Your task to perform on an android device: turn off improve location accuracy Image 0: 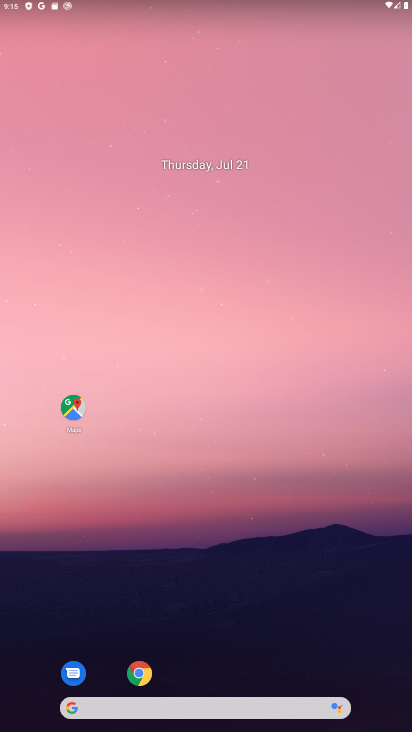
Step 0: press home button
Your task to perform on an android device: turn off improve location accuracy Image 1: 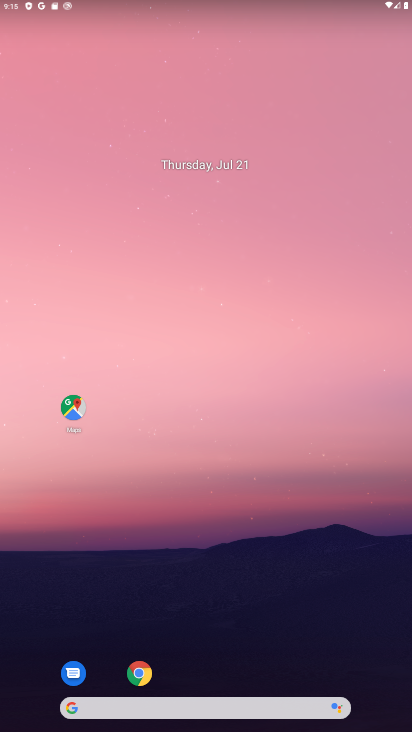
Step 1: drag from (207, 656) to (220, 128)
Your task to perform on an android device: turn off improve location accuracy Image 2: 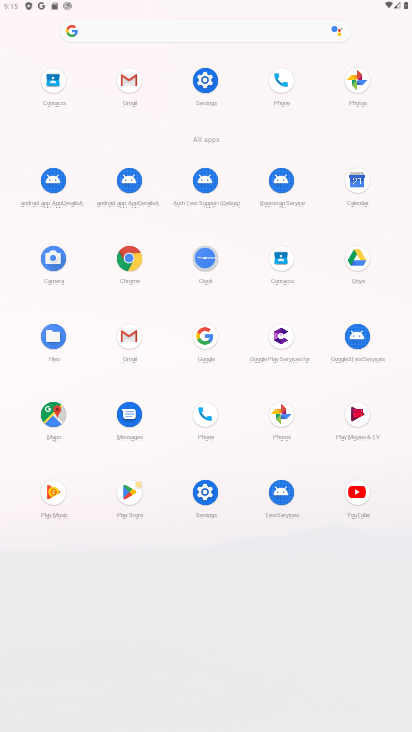
Step 2: click (204, 72)
Your task to perform on an android device: turn off improve location accuracy Image 3: 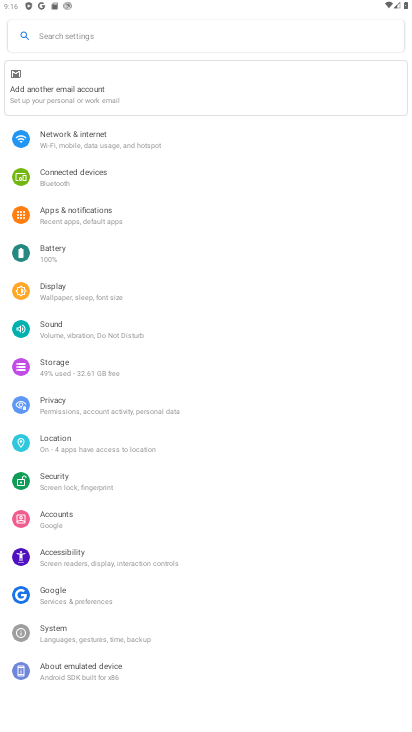
Step 3: click (68, 439)
Your task to perform on an android device: turn off improve location accuracy Image 4: 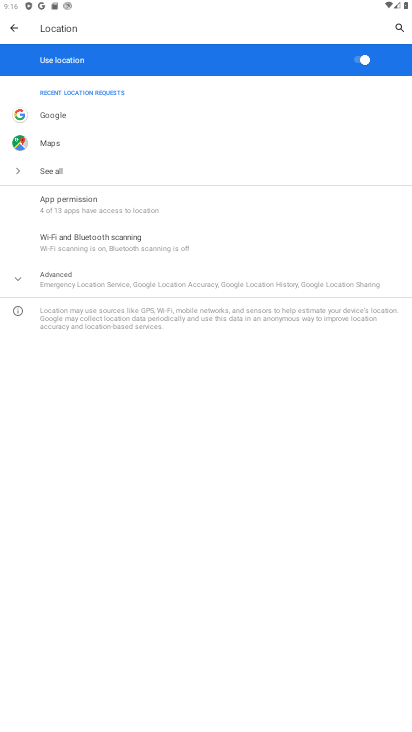
Step 4: click (18, 279)
Your task to perform on an android device: turn off improve location accuracy Image 5: 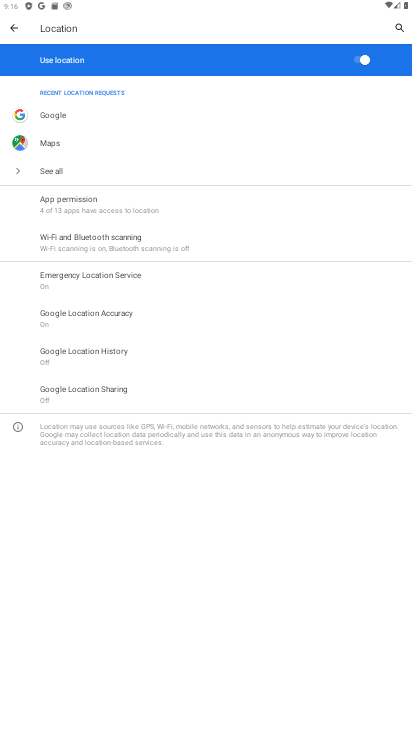
Step 5: click (95, 316)
Your task to perform on an android device: turn off improve location accuracy Image 6: 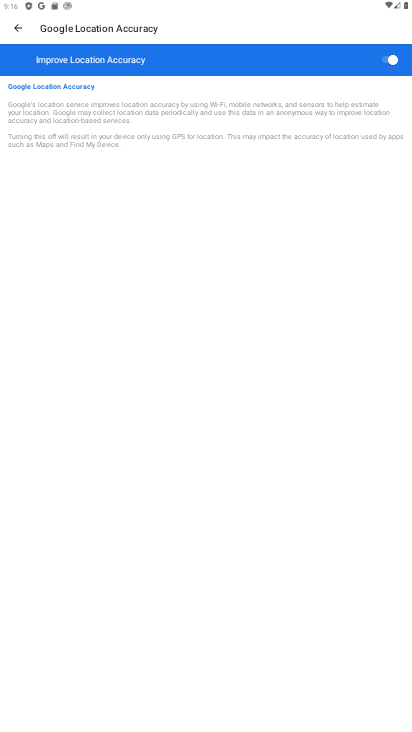
Step 6: click (381, 63)
Your task to perform on an android device: turn off improve location accuracy Image 7: 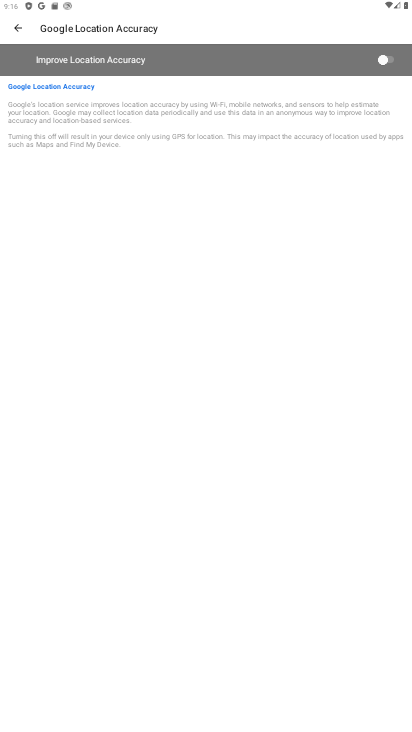
Step 7: task complete